Your task to perform on an android device: turn off improve location accuracy Image 0: 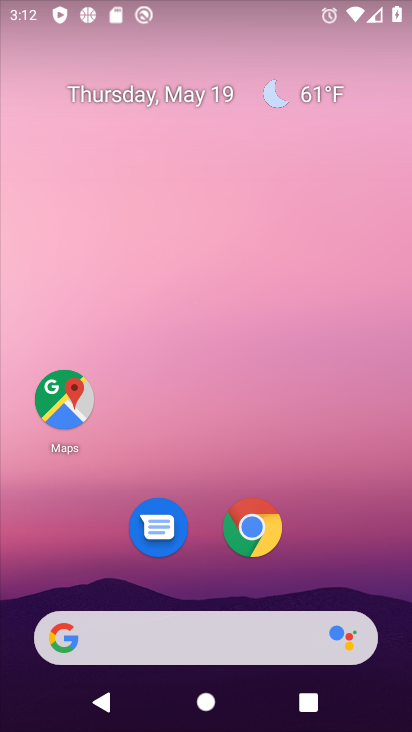
Step 0: drag from (203, 587) to (326, 39)
Your task to perform on an android device: turn off improve location accuracy Image 1: 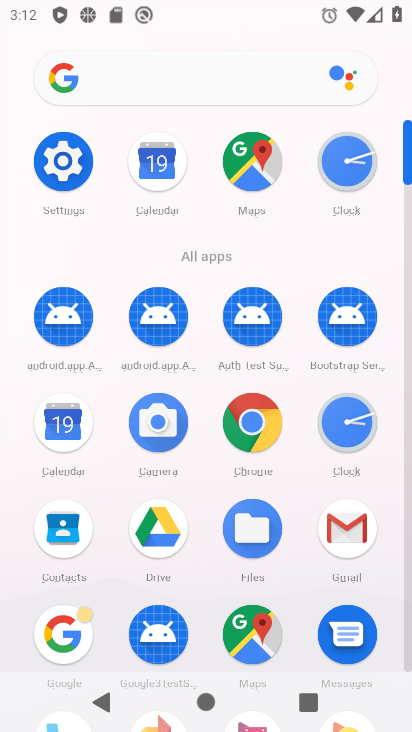
Step 1: click (35, 167)
Your task to perform on an android device: turn off improve location accuracy Image 2: 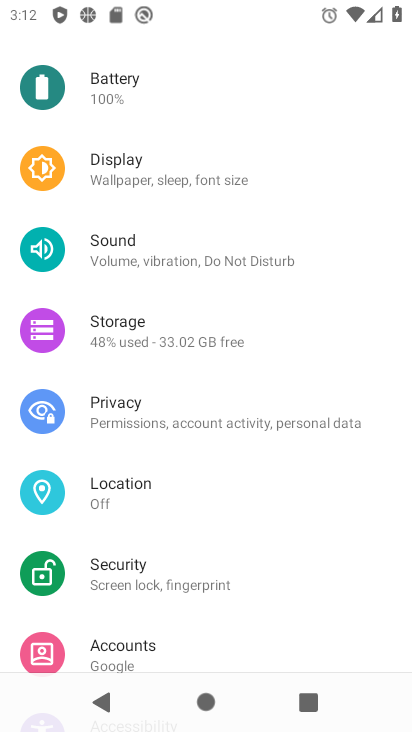
Step 2: click (123, 496)
Your task to perform on an android device: turn off improve location accuracy Image 3: 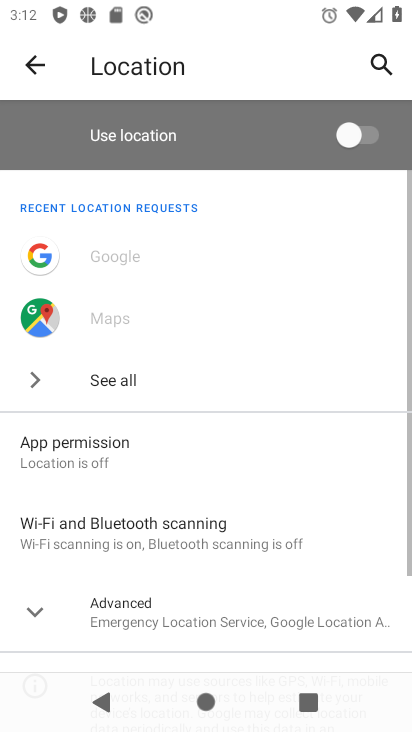
Step 3: click (203, 606)
Your task to perform on an android device: turn off improve location accuracy Image 4: 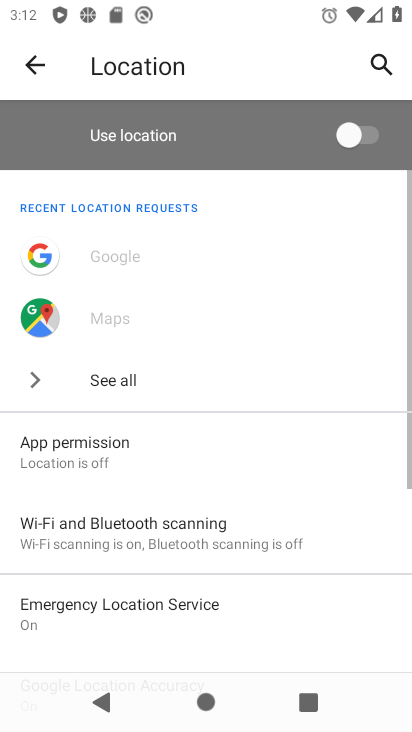
Step 4: drag from (195, 589) to (311, 150)
Your task to perform on an android device: turn off improve location accuracy Image 5: 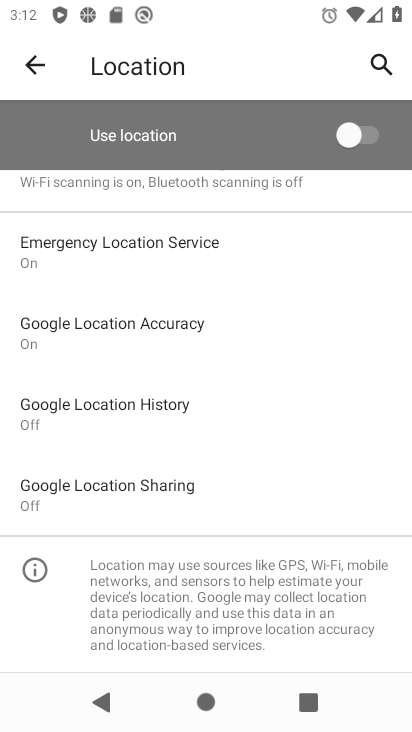
Step 5: click (132, 323)
Your task to perform on an android device: turn off improve location accuracy Image 6: 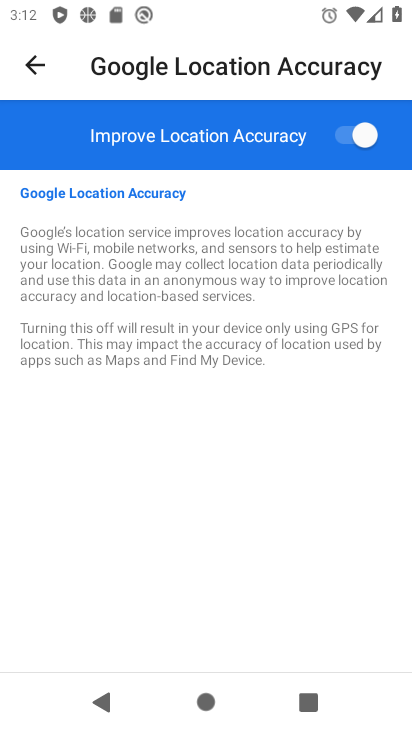
Step 6: click (354, 137)
Your task to perform on an android device: turn off improve location accuracy Image 7: 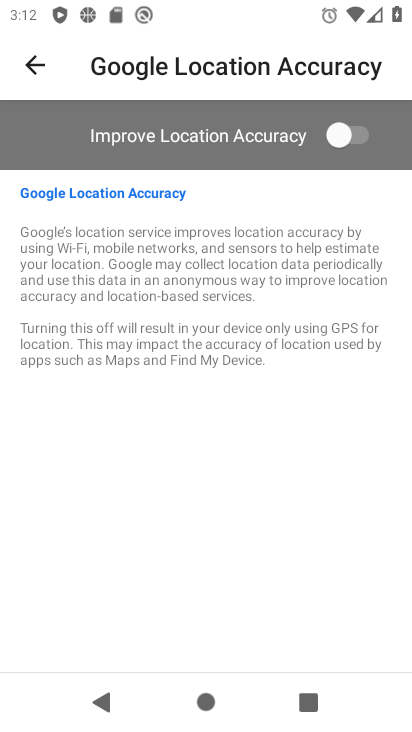
Step 7: task complete